Your task to perform on an android device: change notification settings in the gmail app Image 0: 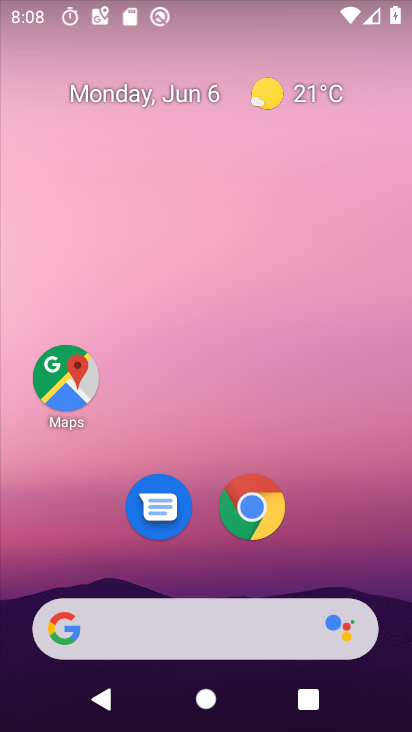
Step 0: press home button
Your task to perform on an android device: change notification settings in the gmail app Image 1: 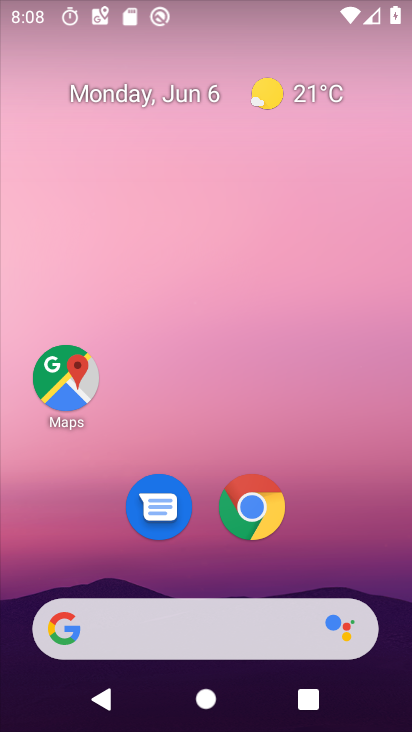
Step 1: click (55, 552)
Your task to perform on an android device: change notification settings in the gmail app Image 2: 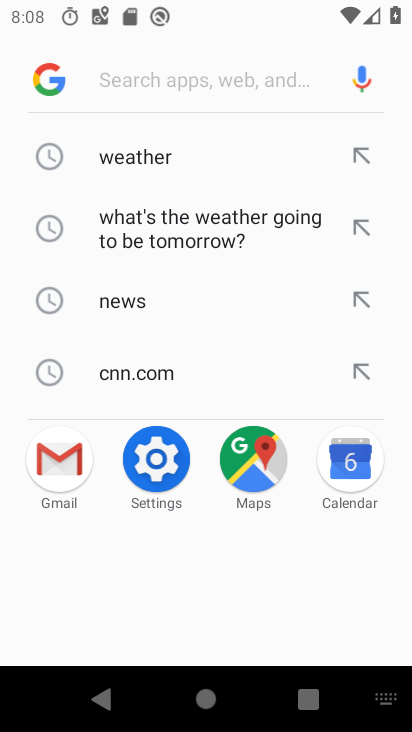
Step 2: press home button
Your task to perform on an android device: change notification settings in the gmail app Image 3: 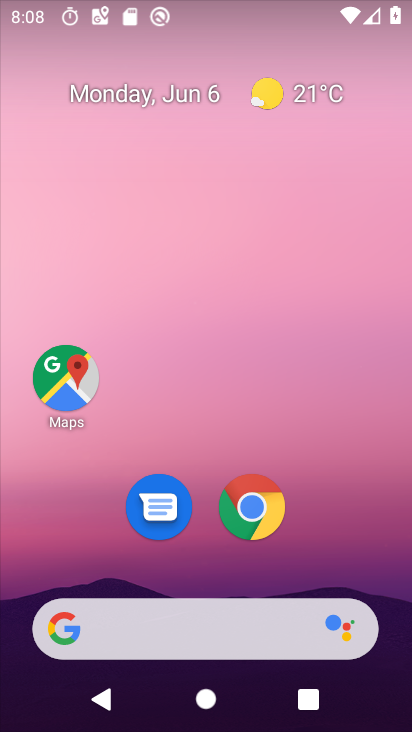
Step 3: drag from (321, 1) to (238, 492)
Your task to perform on an android device: change notification settings in the gmail app Image 4: 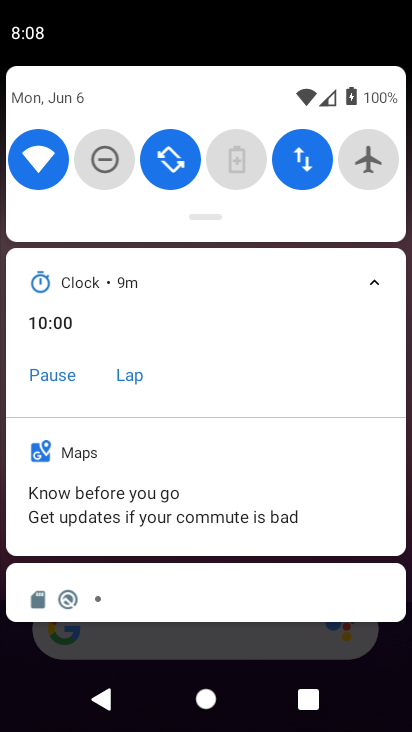
Step 4: click (276, 290)
Your task to perform on an android device: change notification settings in the gmail app Image 5: 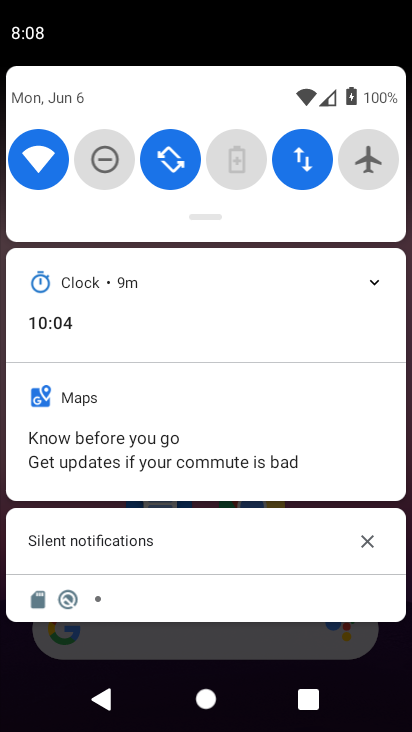
Step 5: drag from (270, 657) to (260, 5)
Your task to perform on an android device: change notification settings in the gmail app Image 6: 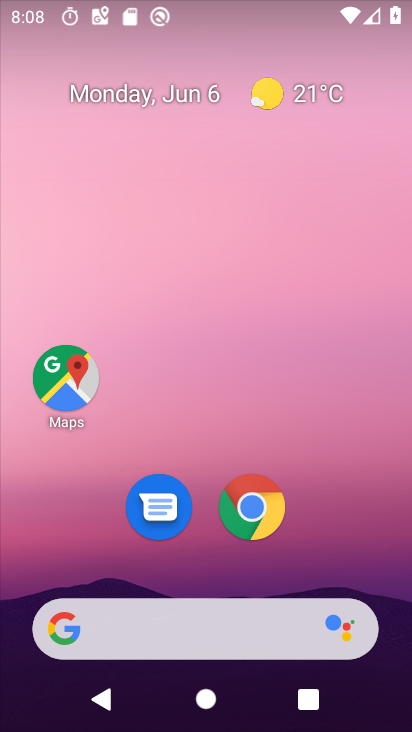
Step 6: drag from (334, 571) to (293, 1)
Your task to perform on an android device: change notification settings in the gmail app Image 7: 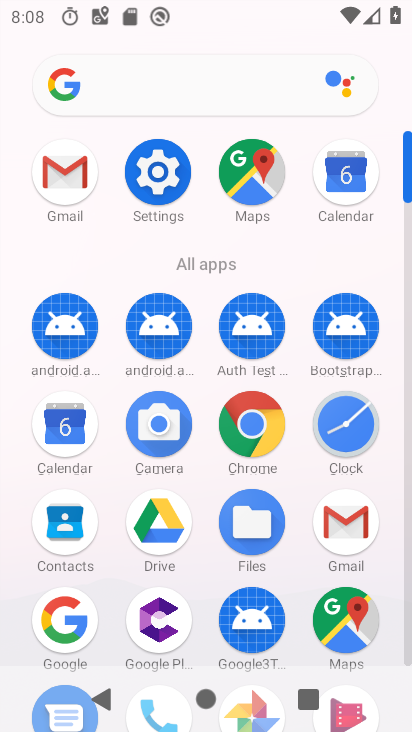
Step 7: click (82, 168)
Your task to perform on an android device: change notification settings in the gmail app Image 8: 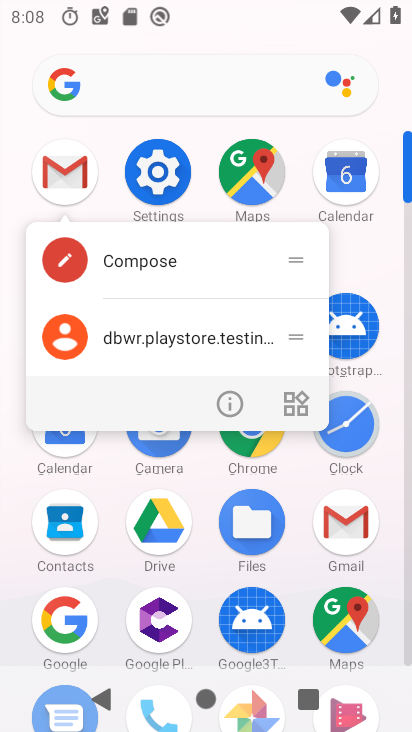
Step 8: click (223, 388)
Your task to perform on an android device: change notification settings in the gmail app Image 9: 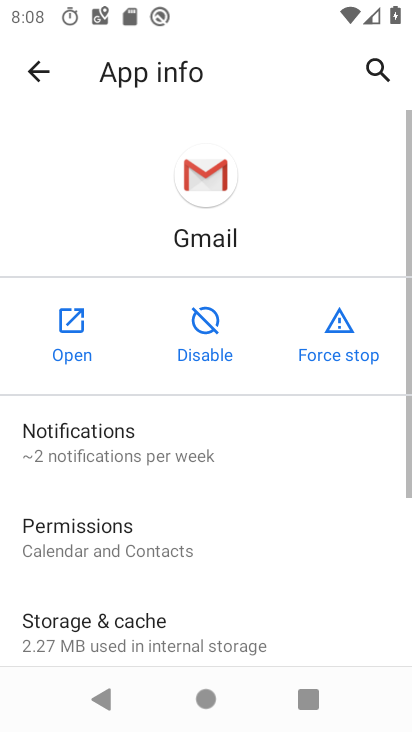
Step 9: click (181, 432)
Your task to perform on an android device: change notification settings in the gmail app Image 10: 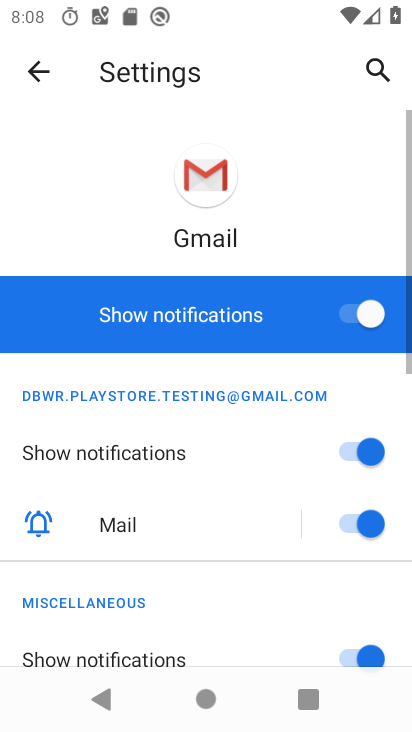
Step 10: click (211, 302)
Your task to perform on an android device: change notification settings in the gmail app Image 11: 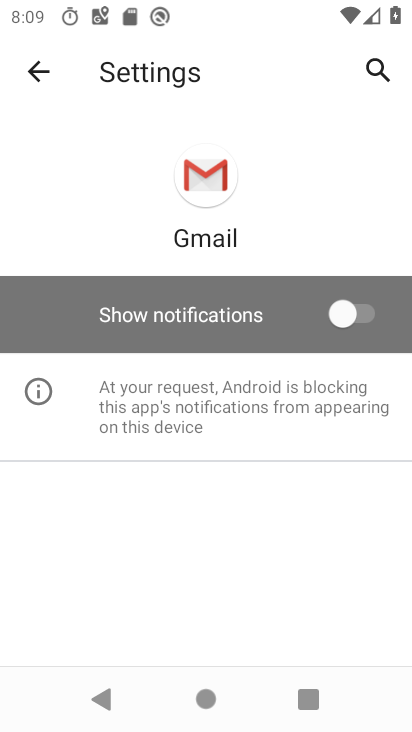
Step 11: task complete